Your task to perform on an android device: Open calendar and show me the first week of next month Image 0: 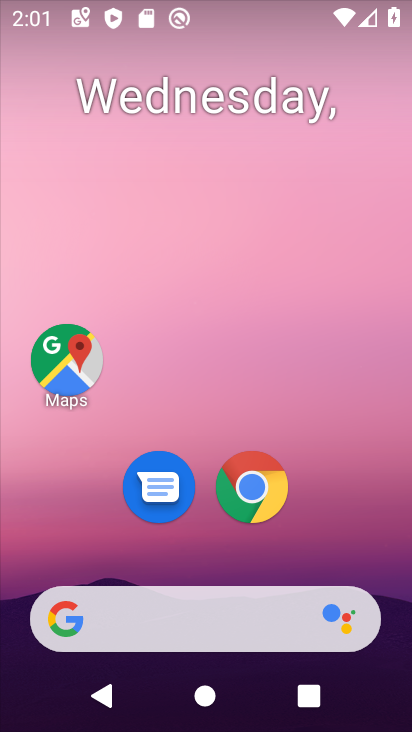
Step 0: drag from (323, 533) to (219, 102)
Your task to perform on an android device: Open calendar and show me the first week of next month Image 1: 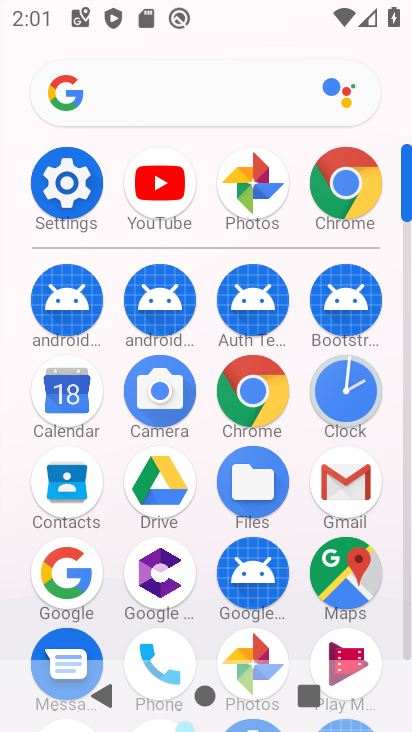
Step 1: click (64, 385)
Your task to perform on an android device: Open calendar and show me the first week of next month Image 2: 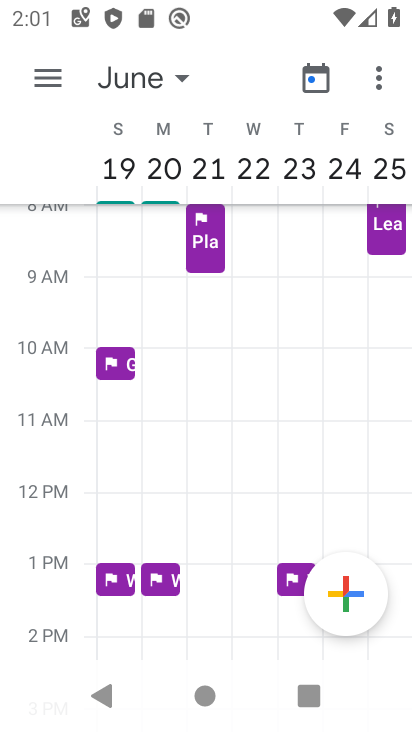
Step 2: click (173, 79)
Your task to perform on an android device: Open calendar and show me the first week of next month Image 3: 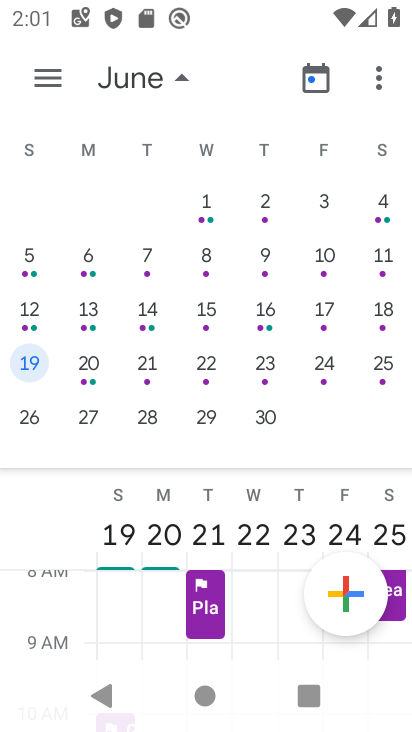
Step 3: click (205, 196)
Your task to perform on an android device: Open calendar and show me the first week of next month Image 4: 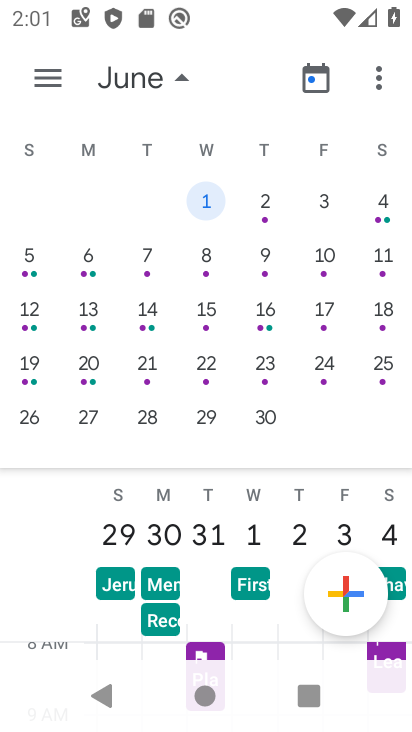
Step 4: task complete